Your task to perform on an android device: Do I have any events this weekend? Image 0: 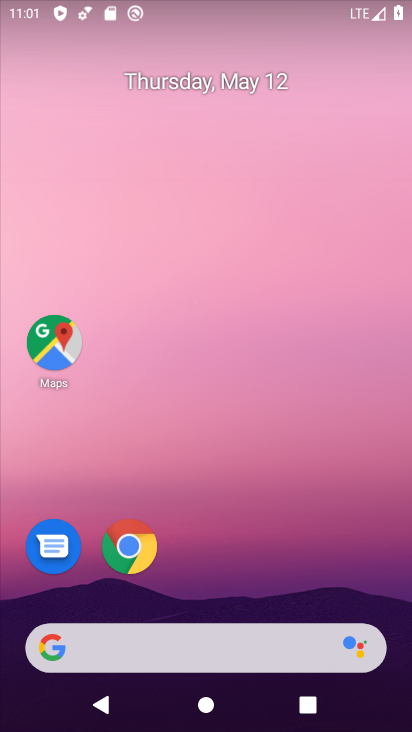
Step 0: drag from (227, 693) to (232, 135)
Your task to perform on an android device: Do I have any events this weekend? Image 1: 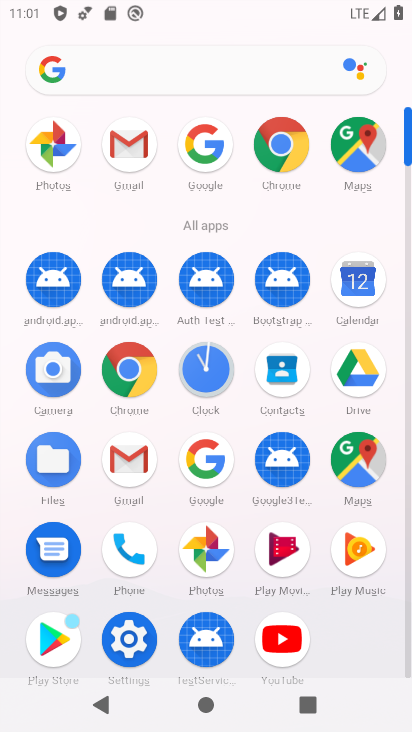
Step 1: click (354, 284)
Your task to perform on an android device: Do I have any events this weekend? Image 2: 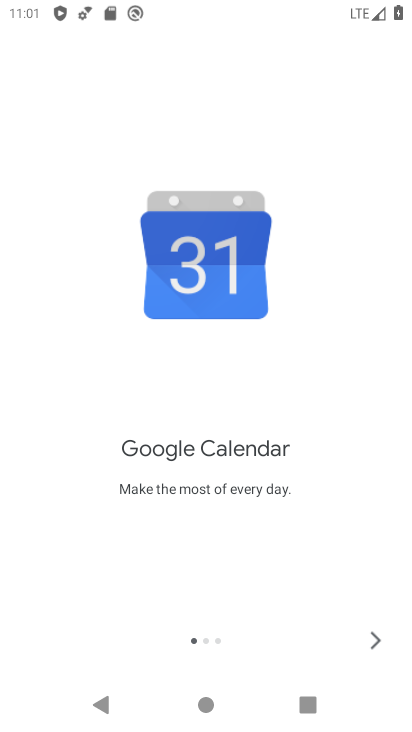
Step 2: click (375, 638)
Your task to perform on an android device: Do I have any events this weekend? Image 3: 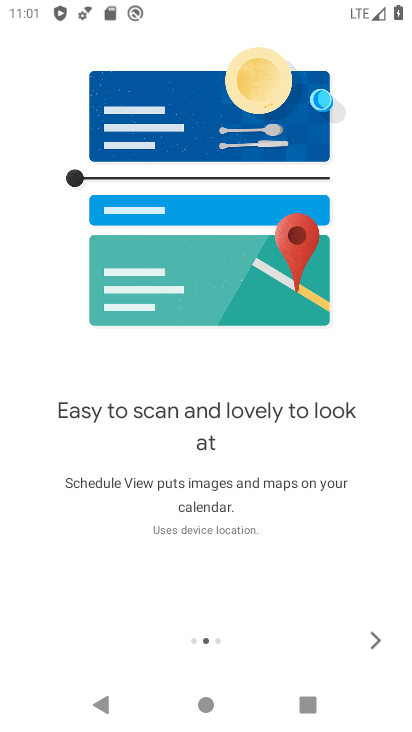
Step 3: click (374, 637)
Your task to perform on an android device: Do I have any events this weekend? Image 4: 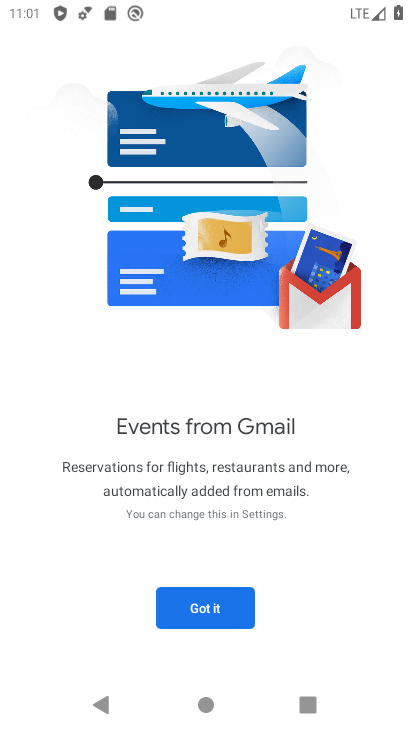
Step 4: click (197, 611)
Your task to perform on an android device: Do I have any events this weekend? Image 5: 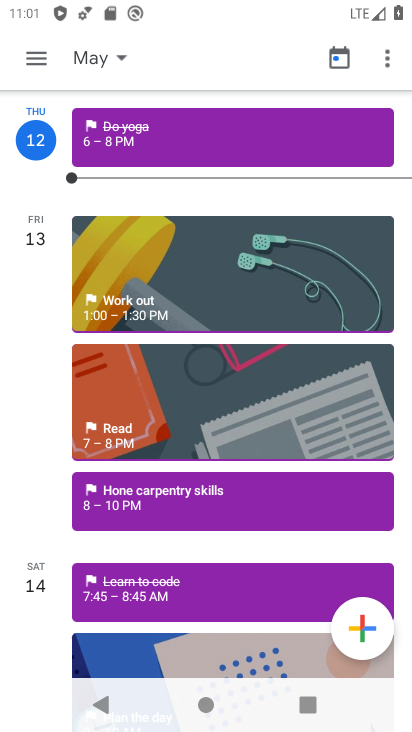
Step 5: click (32, 58)
Your task to perform on an android device: Do I have any events this weekend? Image 6: 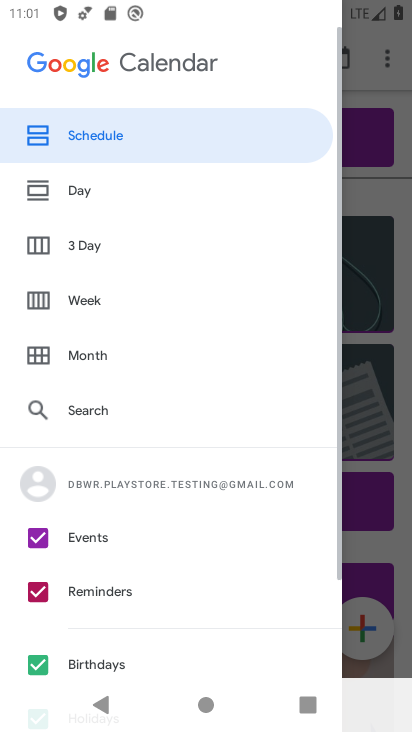
Step 6: drag from (162, 639) to (204, 382)
Your task to perform on an android device: Do I have any events this weekend? Image 7: 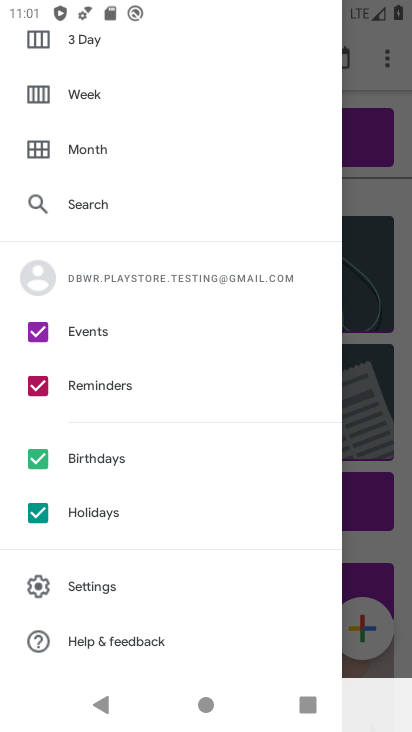
Step 7: click (36, 514)
Your task to perform on an android device: Do I have any events this weekend? Image 8: 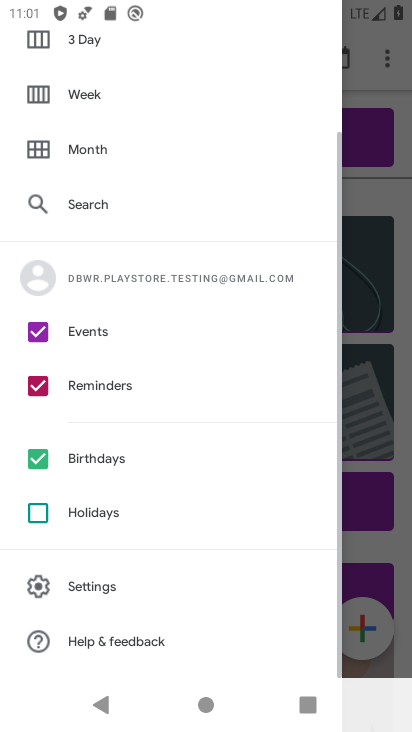
Step 8: click (37, 456)
Your task to perform on an android device: Do I have any events this weekend? Image 9: 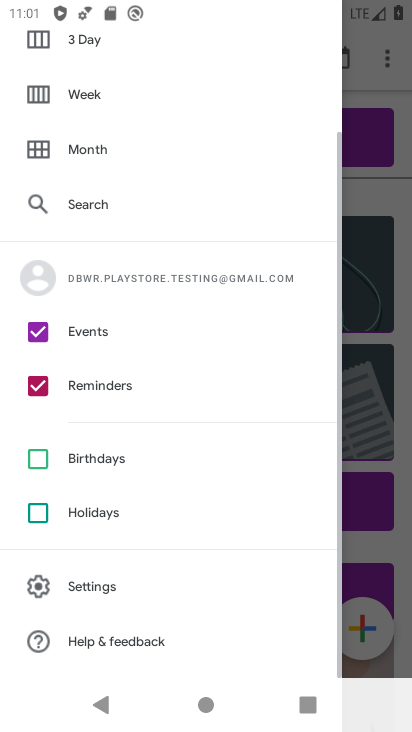
Step 9: click (38, 386)
Your task to perform on an android device: Do I have any events this weekend? Image 10: 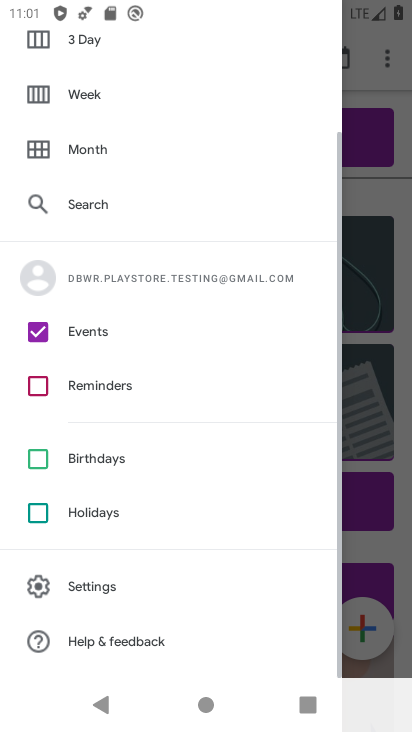
Step 10: drag from (228, 119) to (236, 424)
Your task to perform on an android device: Do I have any events this weekend? Image 11: 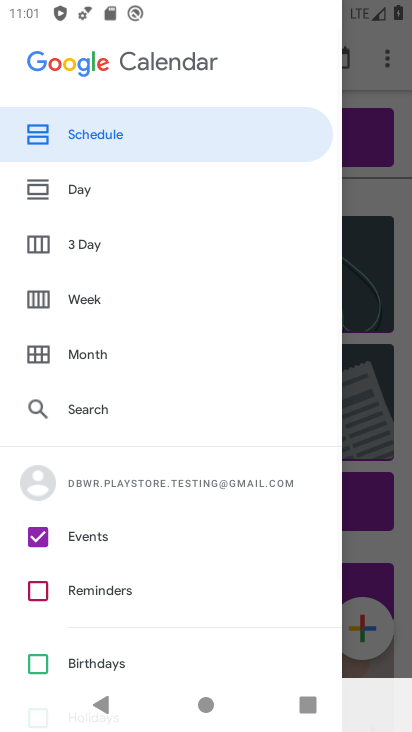
Step 11: click (90, 299)
Your task to perform on an android device: Do I have any events this weekend? Image 12: 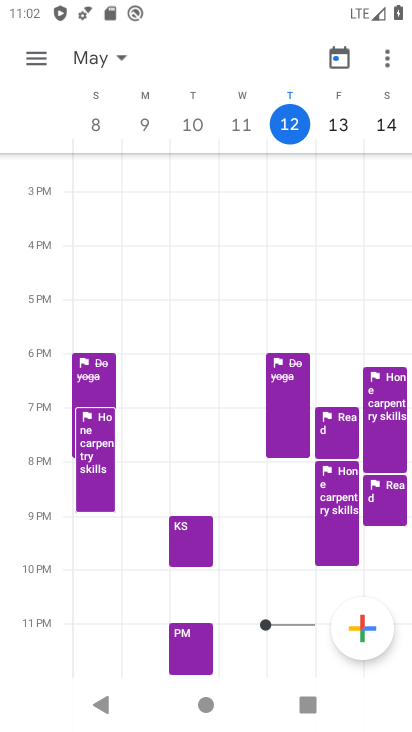
Step 12: task complete